Your task to perform on an android device: Open Chrome and go to settings Image 0: 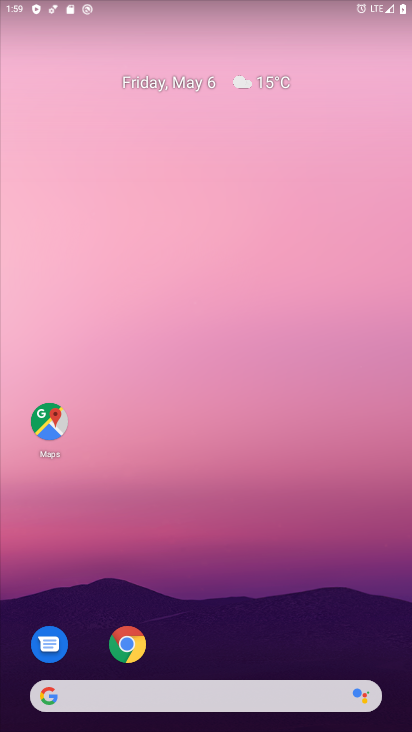
Step 0: click (126, 646)
Your task to perform on an android device: Open Chrome and go to settings Image 1: 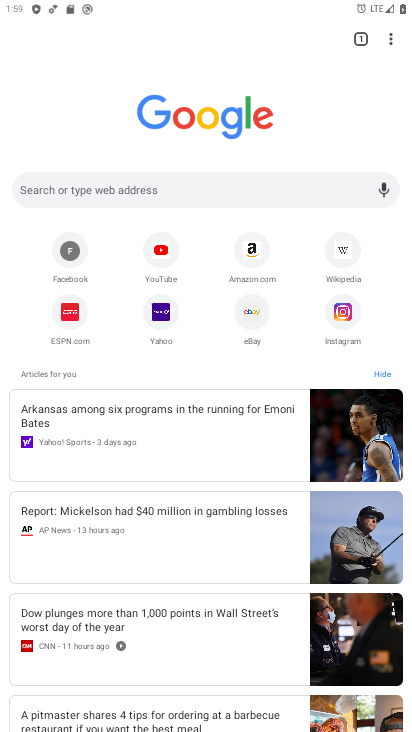
Step 1: click (389, 47)
Your task to perform on an android device: Open Chrome and go to settings Image 2: 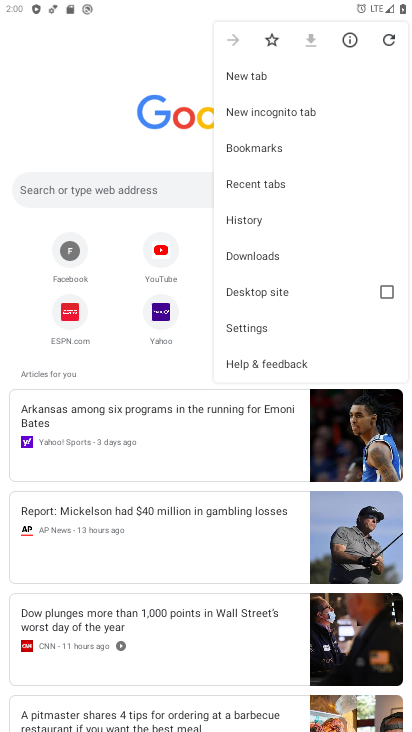
Step 2: click (309, 331)
Your task to perform on an android device: Open Chrome and go to settings Image 3: 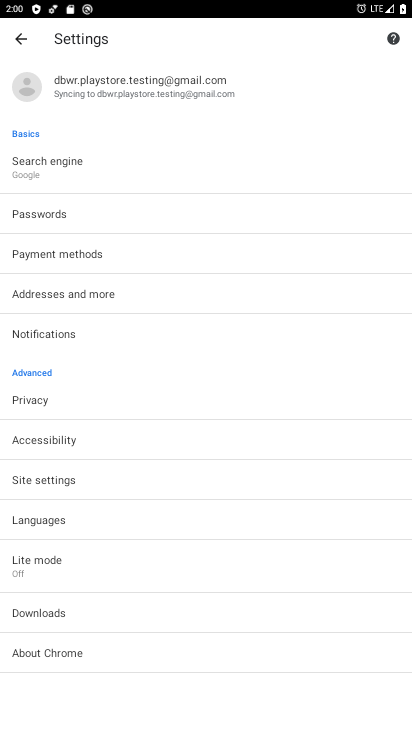
Step 3: task complete